Your task to perform on an android device: Clear the shopping cart on bestbuy.com. Add alienware aurora to the cart on bestbuy.com Image 0: 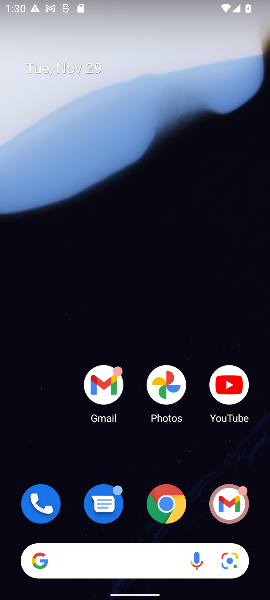
Step 0: click (163, 509)
Your task to perform on an android device: Clear the shopping cart on bestbuy.com. Add alienware aurora to the cart on bestbuy.com Image 1: 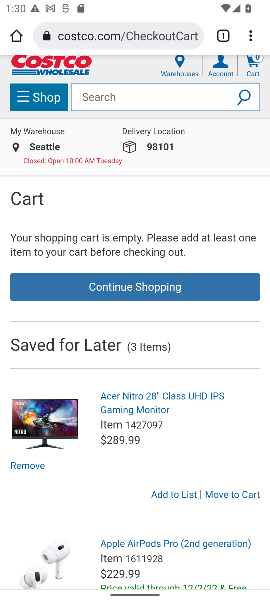
Step 1: click (115, 37)
Your task to perform on an android device: Clear the shopping cart on bestbuy.com. Add alienware aurora to the cart on bestbuy.com Image 2: 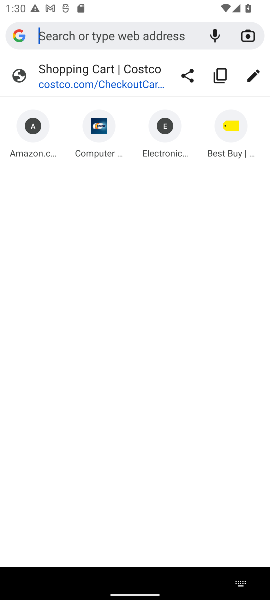
Step 2: click (221, 140)
Your task to perform on an android device: Clear the shopping cart on bestbuy.com. Add alienware aurora to the cart on bestbuy.com Image 3: 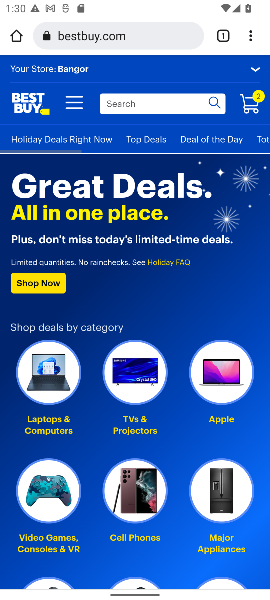
Step 3: click (253, 106)
Your task to perform on an android device: Clear the shopping cart on bestbuy.com. Add alienware aurora to the cart on bestbuy.com Image 4: 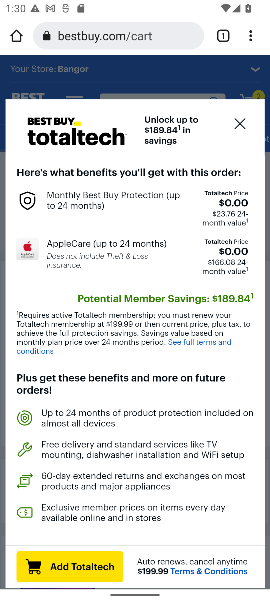
Step 4: click (238, 126)
Your task to perform on an android device: Clear the shopping cart on bestbuy.com. Add alienware aurora to the cart on bestbuy.com Image 5: 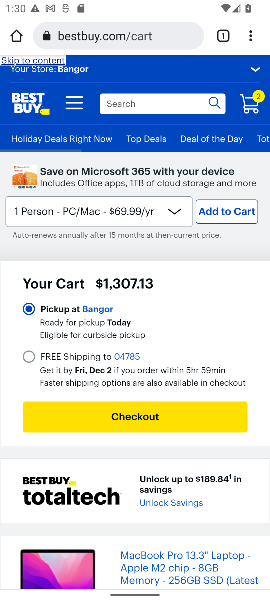
Step 5: drag from (116, 383) to (124, 171)
Your task to perform on an android device: Clear the shopping cart on bestbuy.com. Add alienware aurora to the cart on bestbuy.com Image 6: 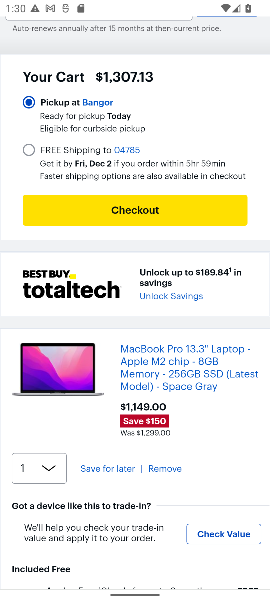
Step 6: click (157, 467)
Your task to perform on an android device: Clear the shopping cart on bestbuy.com. Add alienware aurora to the cart on bestbuy.com Image 7: 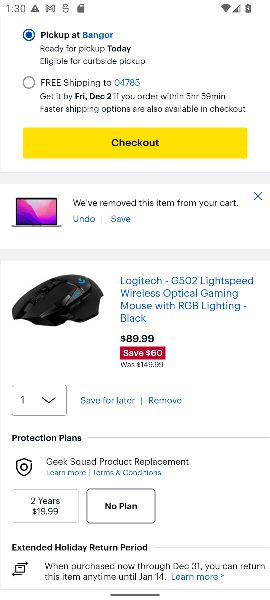
Step 7: click (161, 399)
Your task to perform on an android device: Clear the shopping cart on bestbuy.com. Add alienware aurora to the cart on bestbuy.com Image 8: 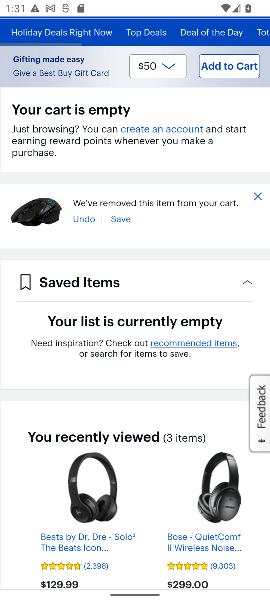
Step 8: drag from (134, 214) to (145, 441)
Your task to perform on an android device: Clear the shopping cart on bestbuy.com. Add alienware aurora to the cart on bestbuy.com Image 9: 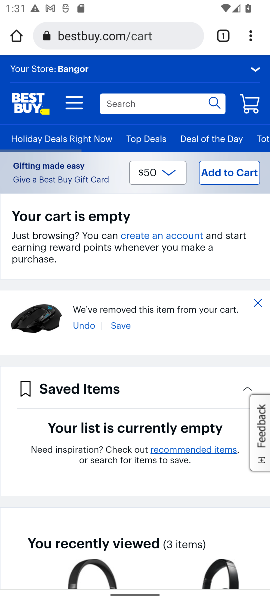
Step 9: click (131, 102)
Your task to perform on an android device: Clear the shopping cart on bestbuy.com. Add alienware aurora to the cart on bestbuy.com Image 10: 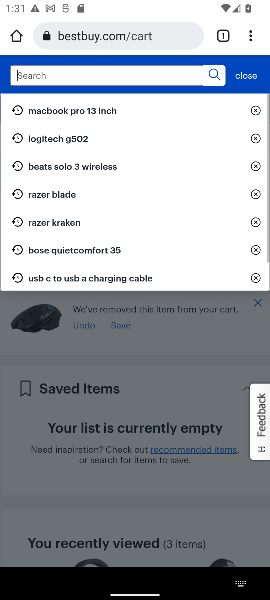
Step 10: type "alienware aurora"
Your task to perform on an android device: Clear the shopping cart on bestbuy.com. Add alienware aurora to the cart on bestbuy.com Image 11: 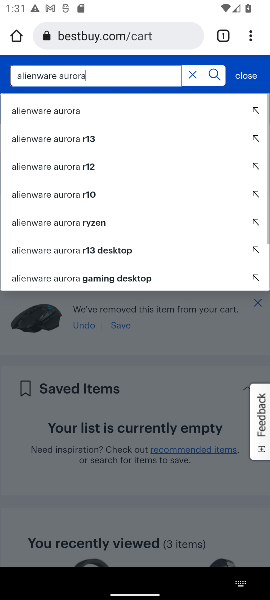
Step 11: click (36, 111)
Your task to perform on an android device: Clear the shopping cart on bestbuy.com. Add alienware aurora to the cart on bestbuy.com Image 12: 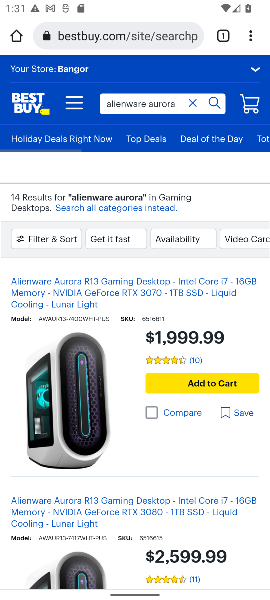
Step 12: click (179, 415)
Your task to perform on an android device: Clear the shopping cart on bestbuy.com. Add alienware aurora to the cart on bestbuy.com Image 13: 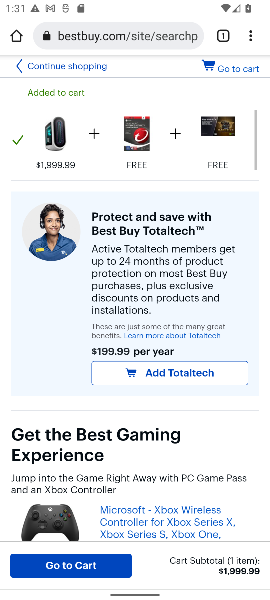
Step 13: task complete